Your task to perform on an android device: install app "PlayWell" Image 0: 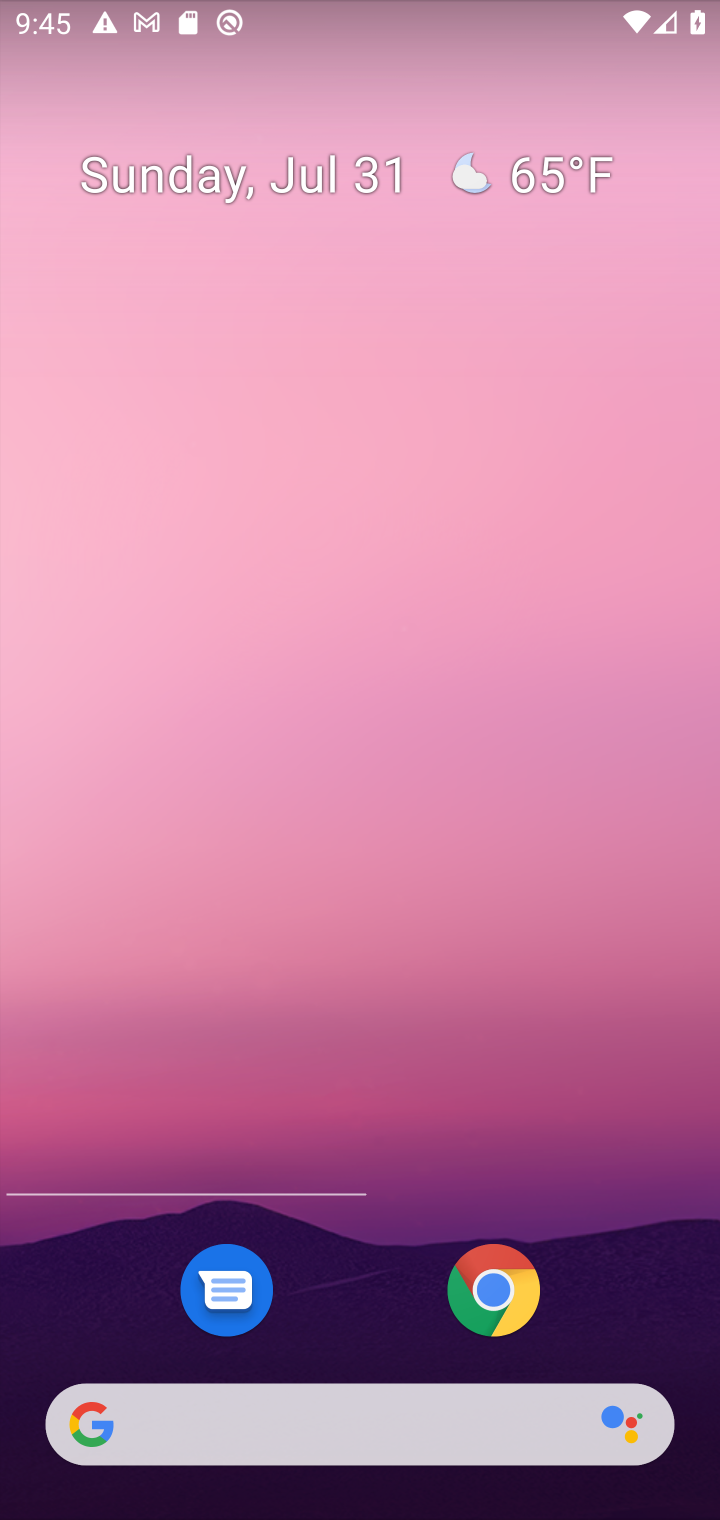
Step 0: press home button
Your task to perform on an android device: install app "PlayWell" Image 1: 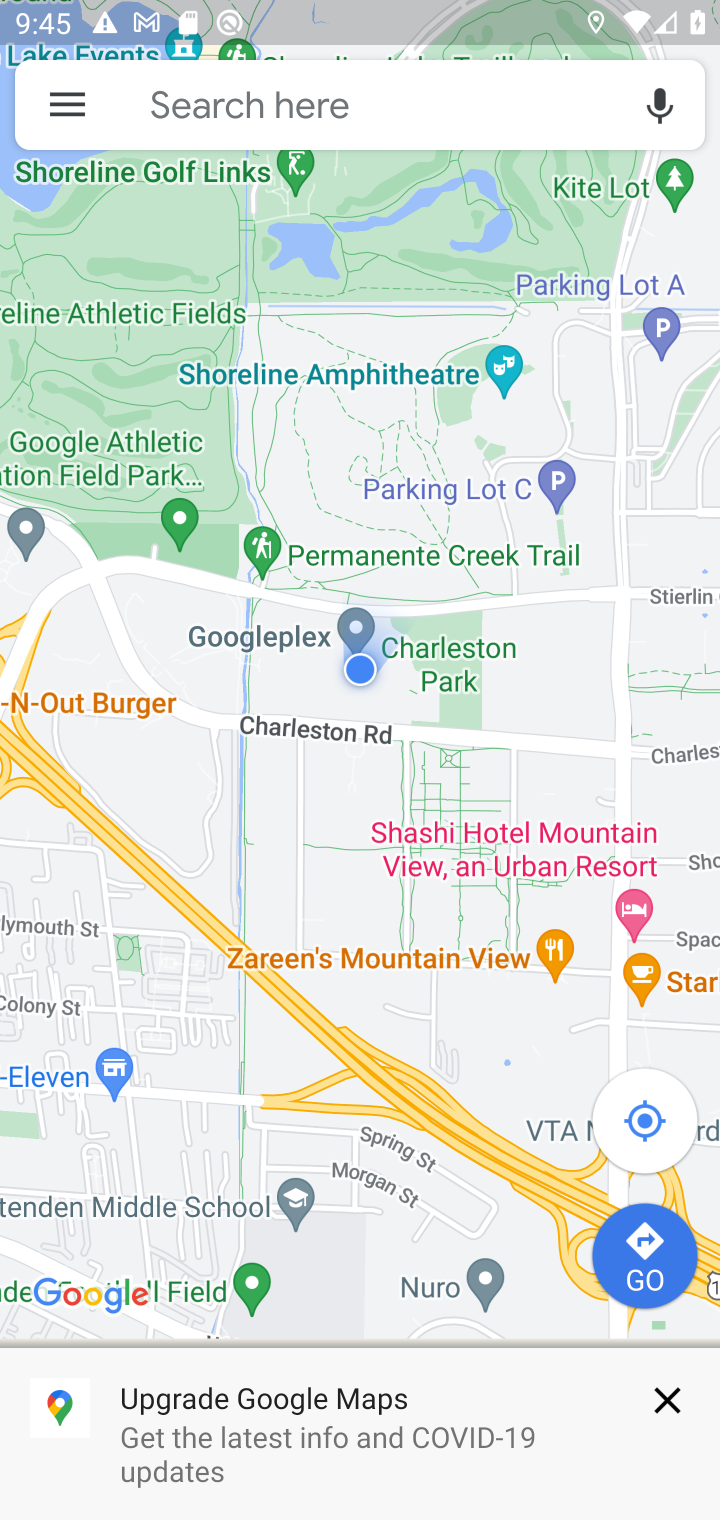
Step 1: drag from (592, 1071) to (534, 281)
Your task to perform on an android device: install app "PlayWell" Image 2: 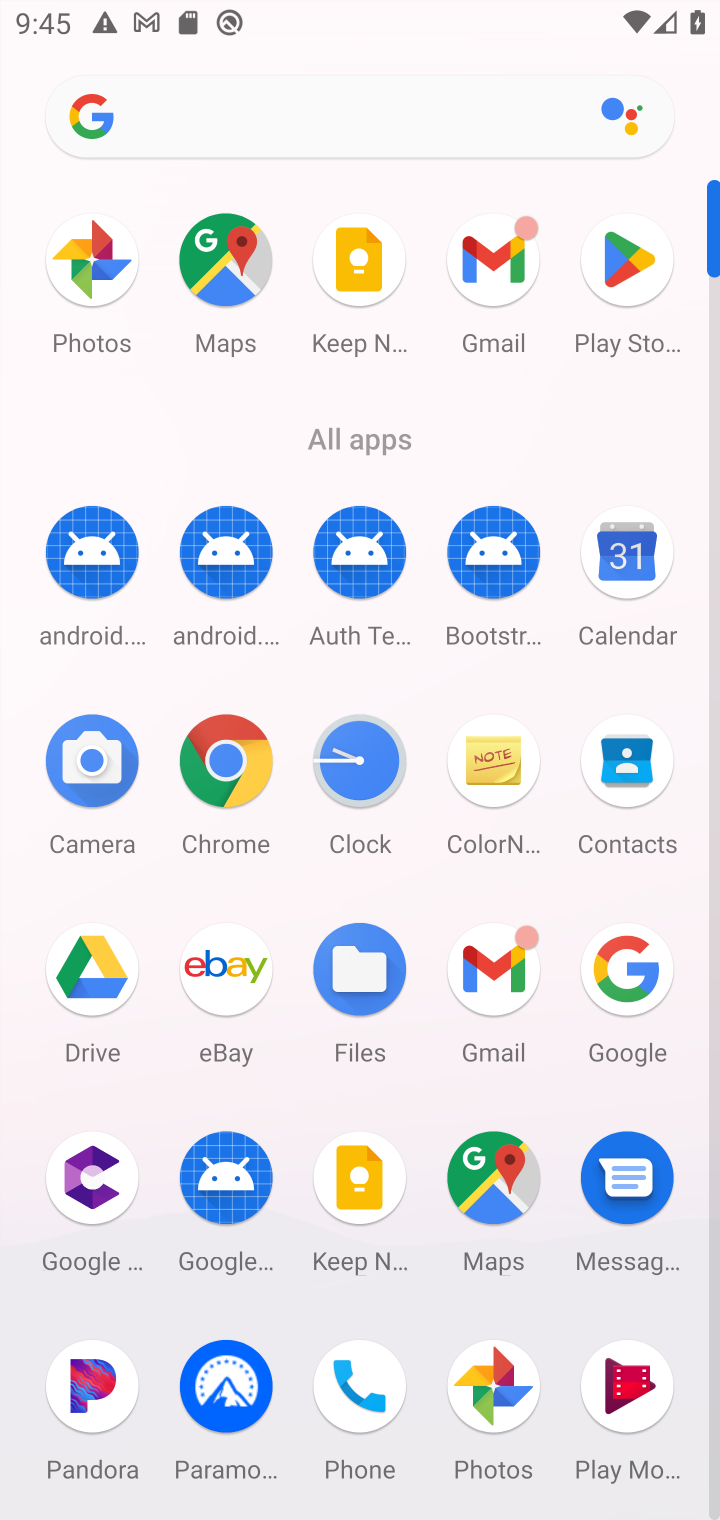
Step 2: click (633, 263)
Your task to perform on an android device: install app "PlayWell" Image 3: 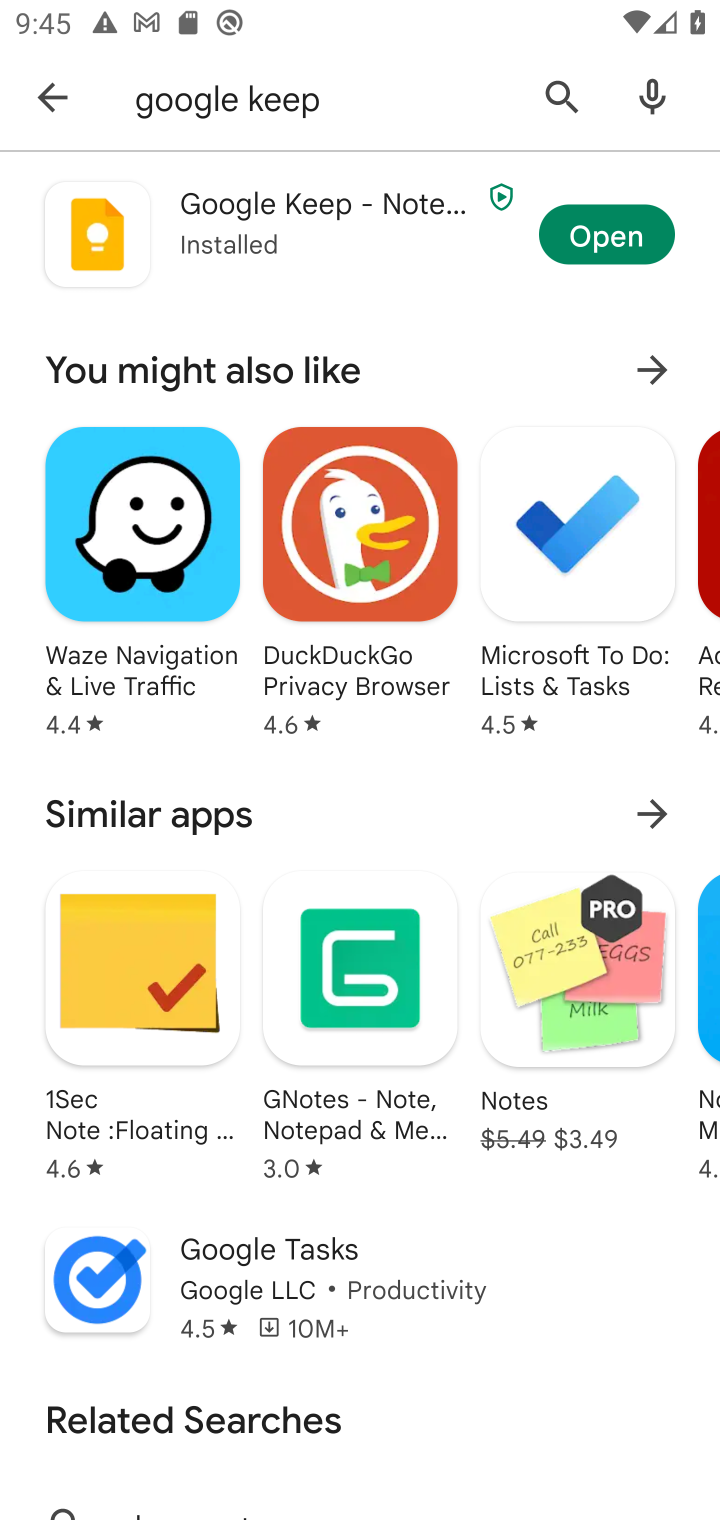
Step 3: click (557, 93)
Your task to perform on an android device: install app "PlayWell" Image 4: 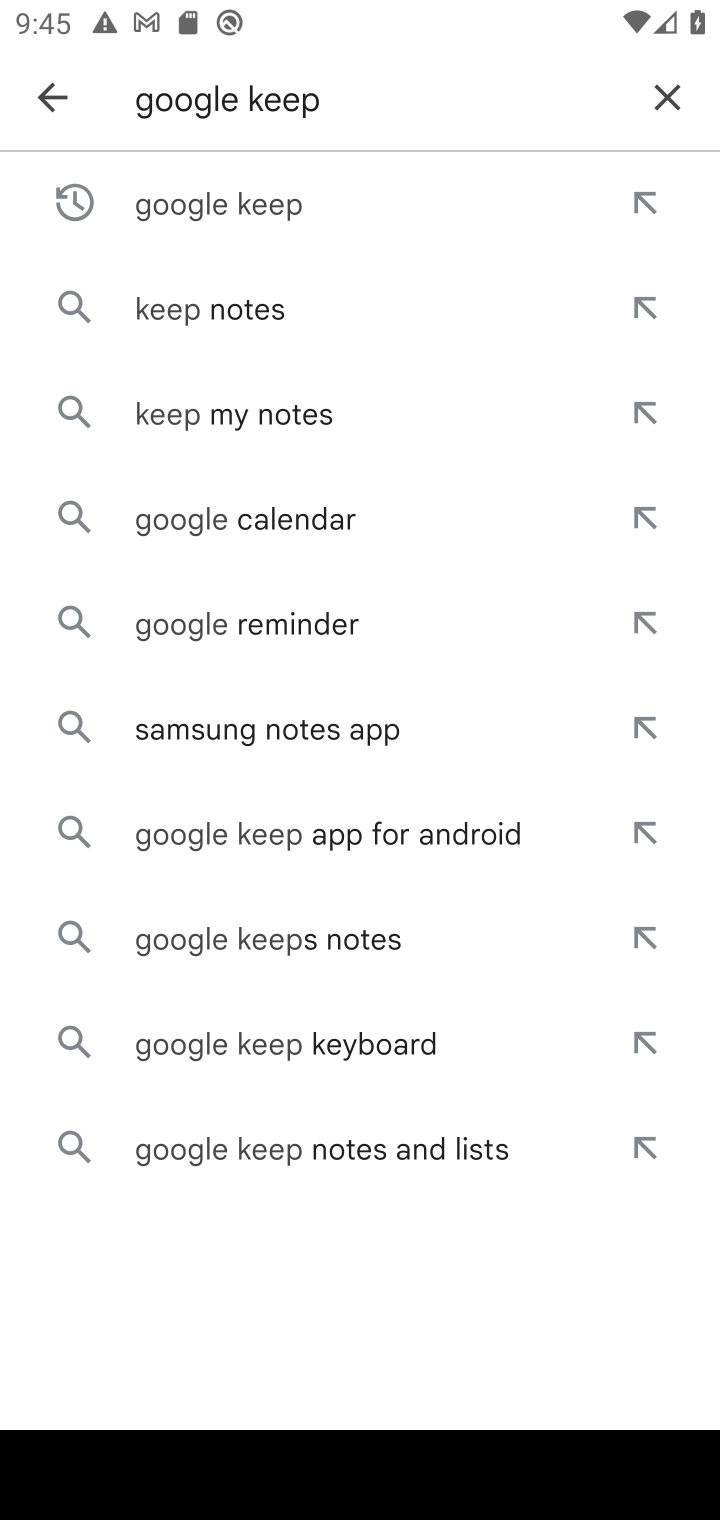
Step 4: click (665, 108)
Your task to perform on an android device: install app "PlayWell" Image 5: 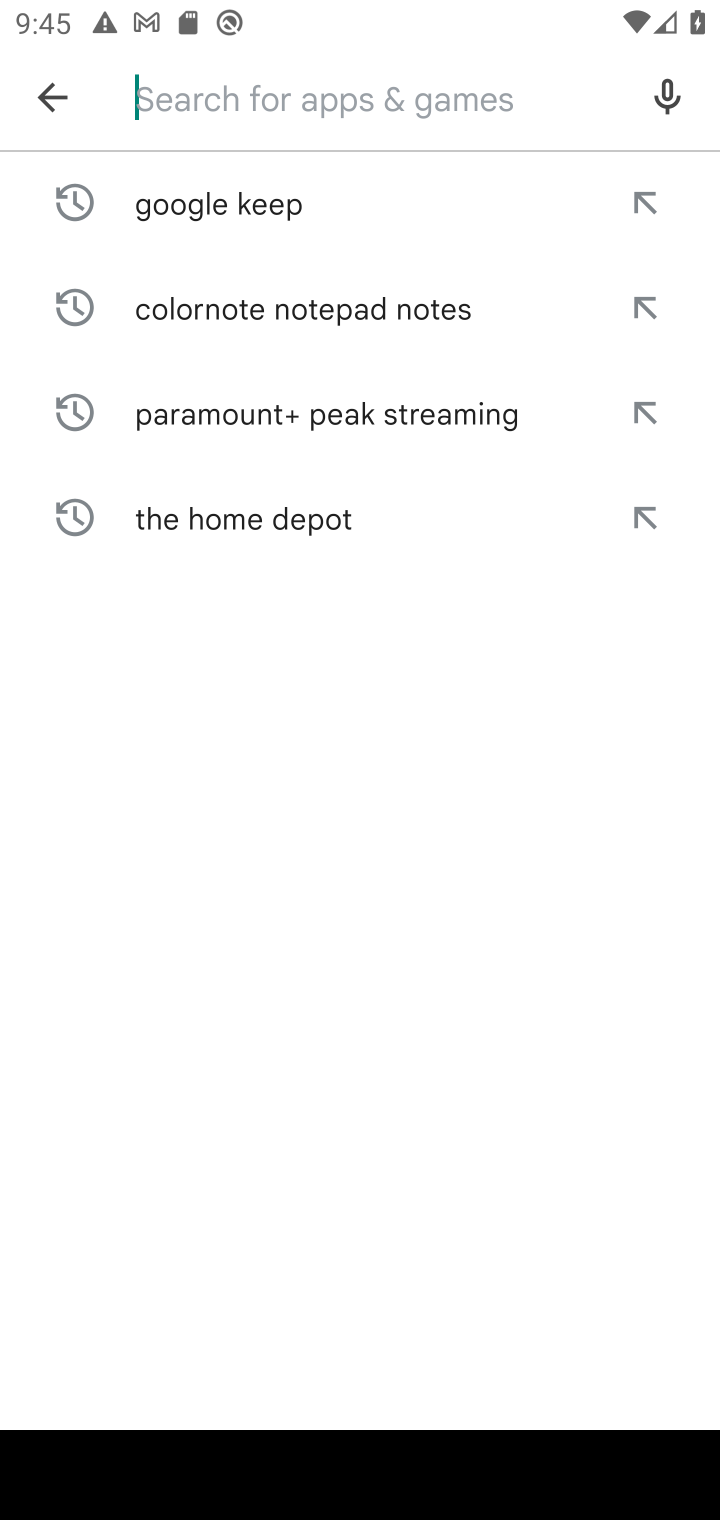
Step 5: type "play well"
Your task to perform on an android device: install app "PlayWell" Image 6: 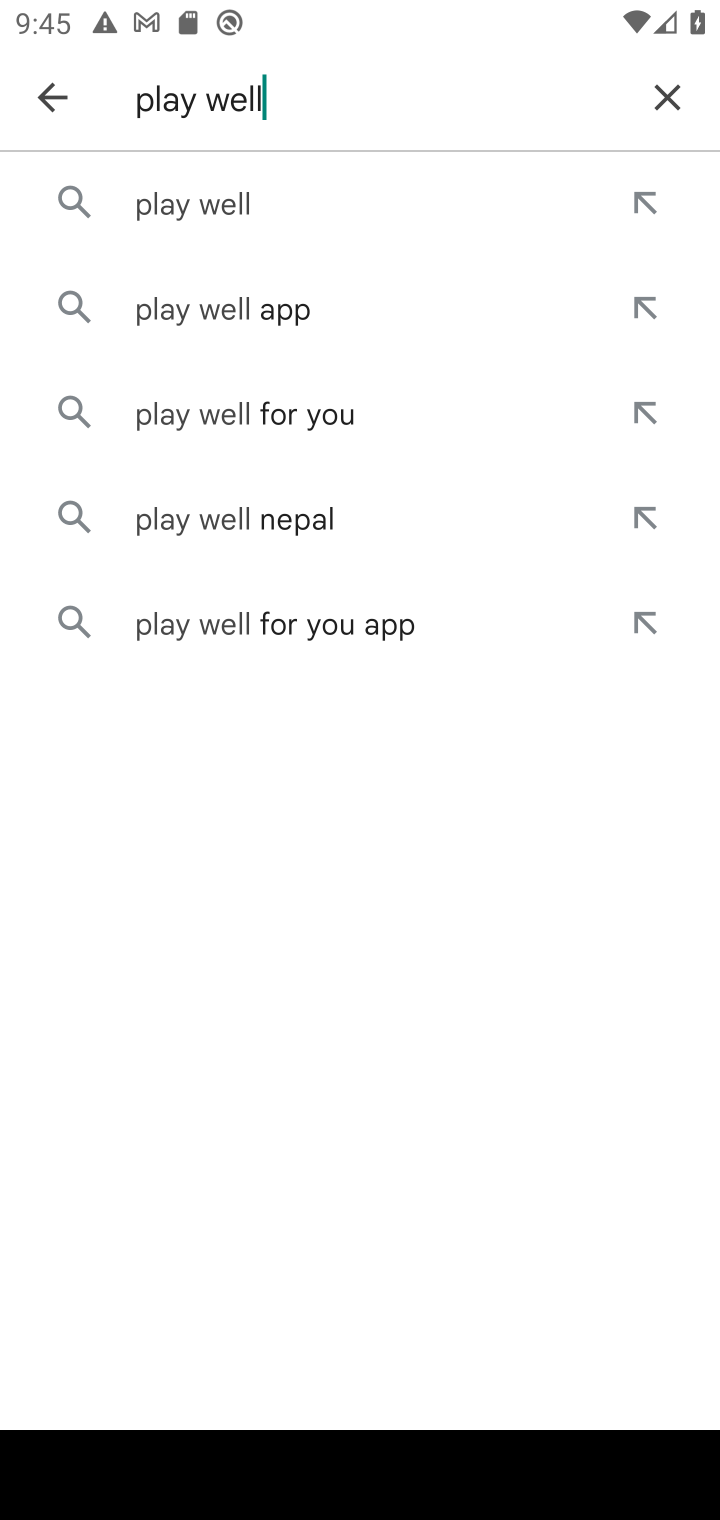
Step 6: click (225, 211)
Your task to perform on an android device: install app "PlayWell" Image 7: 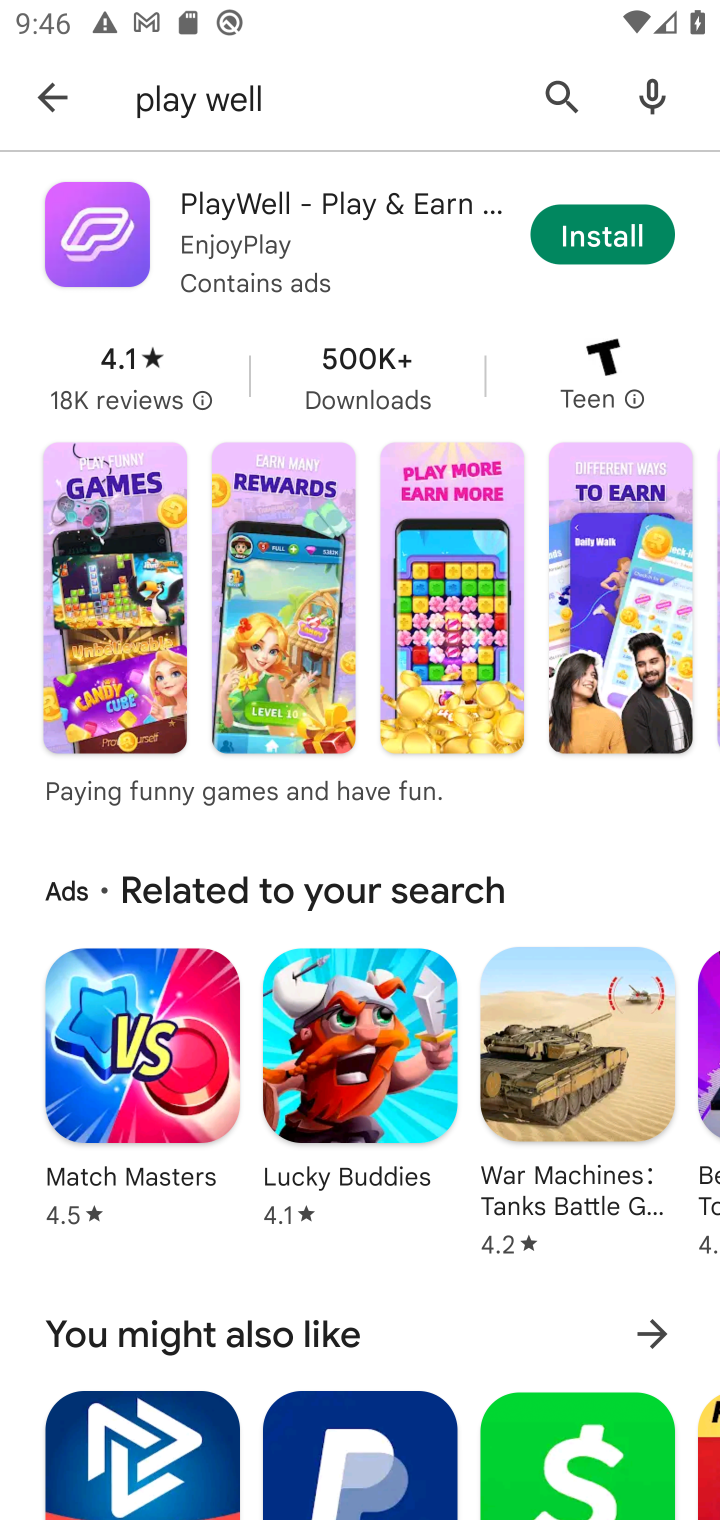
Step 7: click (599, 238)
Your task to perform on an android device: install app "PlayWell" Image 8: 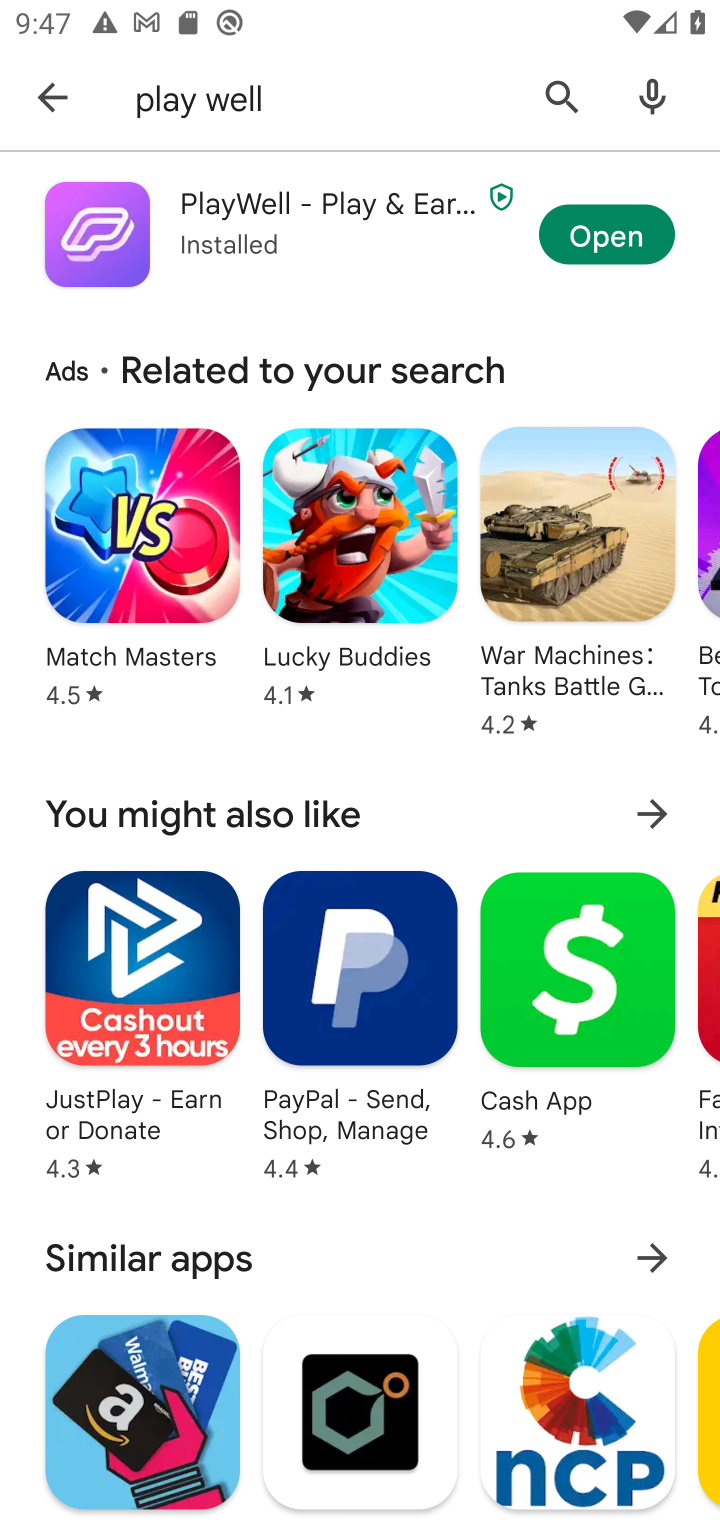
Step 8: task complete